Your task to perform on an android device: Clear the cart on target.com. Image 0: 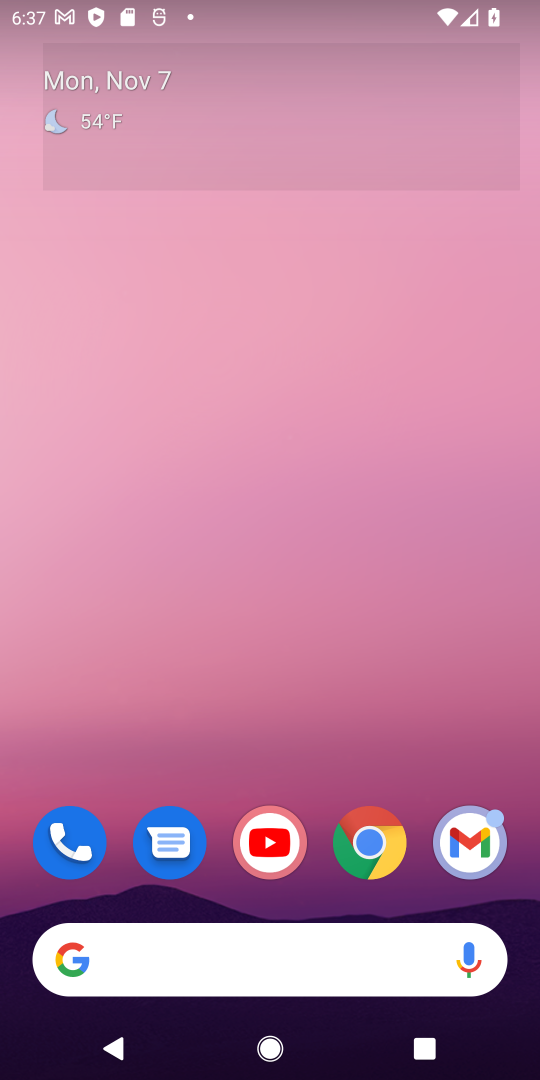
Step 0: click (386, 861)
Your task to perform on an android device: Clear the cart on target.com. Image 1: 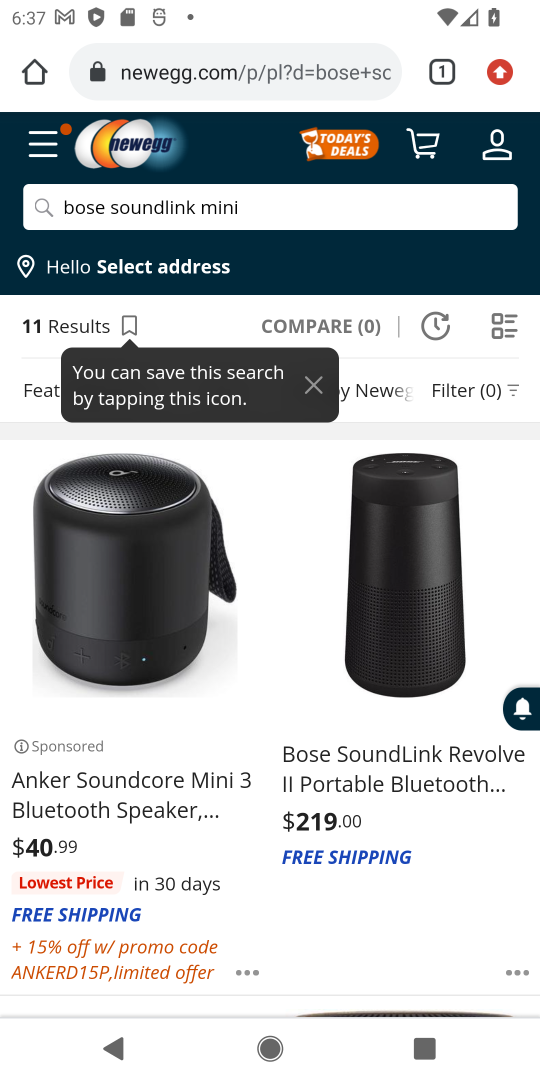
Step 1: click (310, 73)
Your task to perform on an android device: Clear the cart on target.com. Image 2: 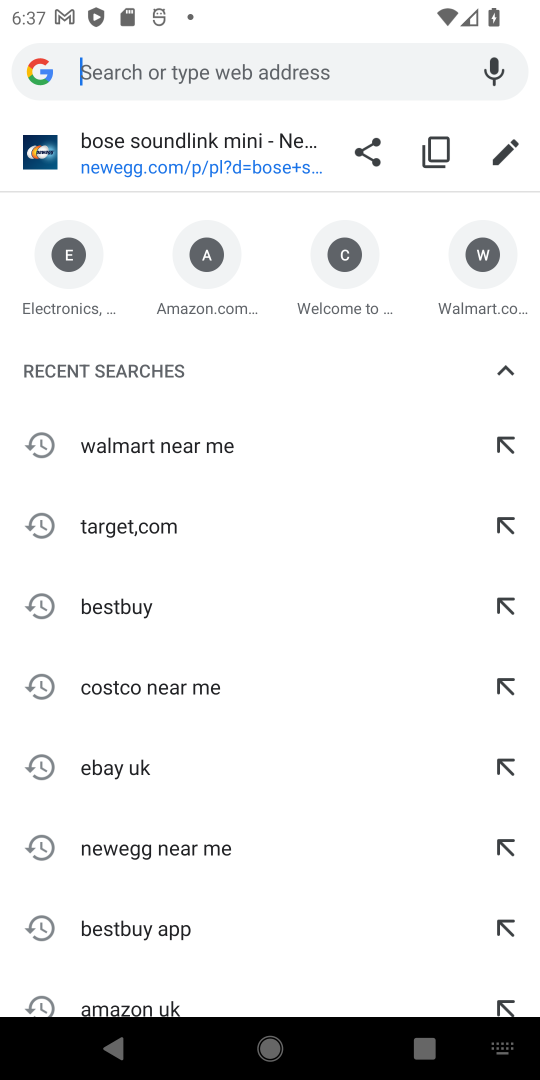
Step 2: drag from (489, 290) to (46, 288)
Your task to perform on an android device: Clear the cart on target.com. Image 3: 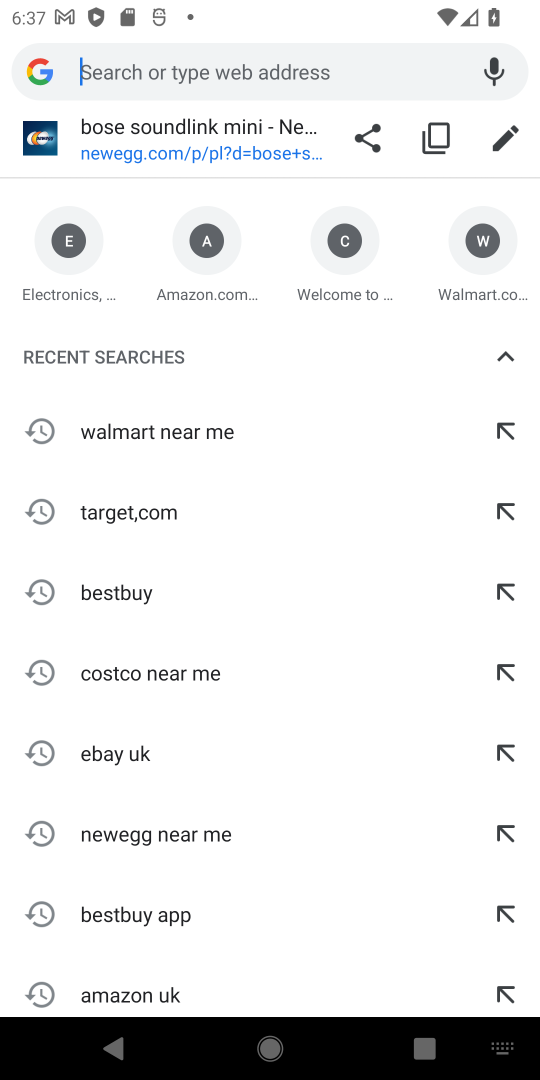
Step 3: drag from (446, 286) to (0, 297)
Your task to perform on an android device: Clear the cart on target.com. Image 4: 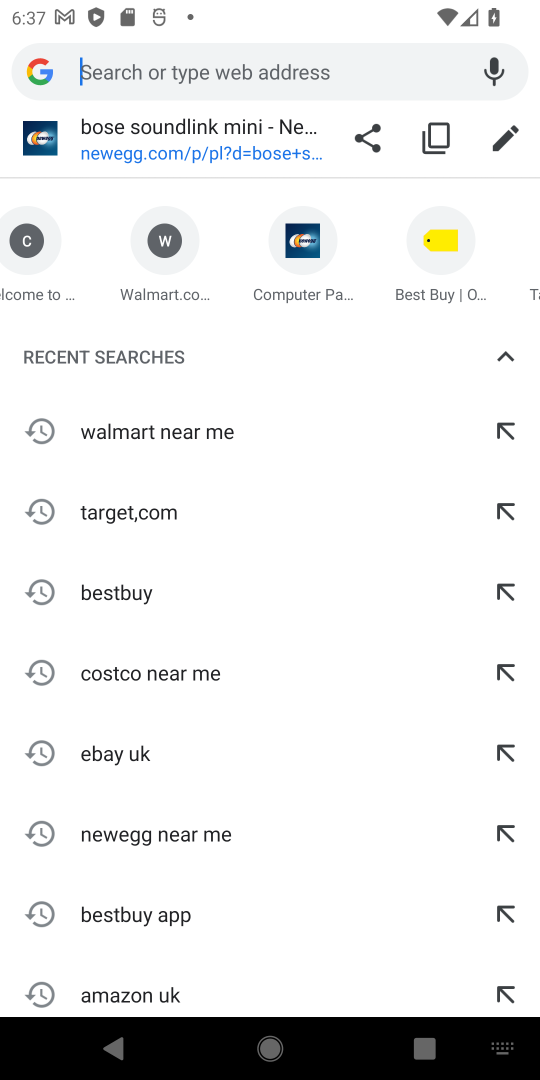
Step 4: drag from (454, 276) to (39, 239)
Your task to perform on an android device: Clear the cart on target.com. Image 5: 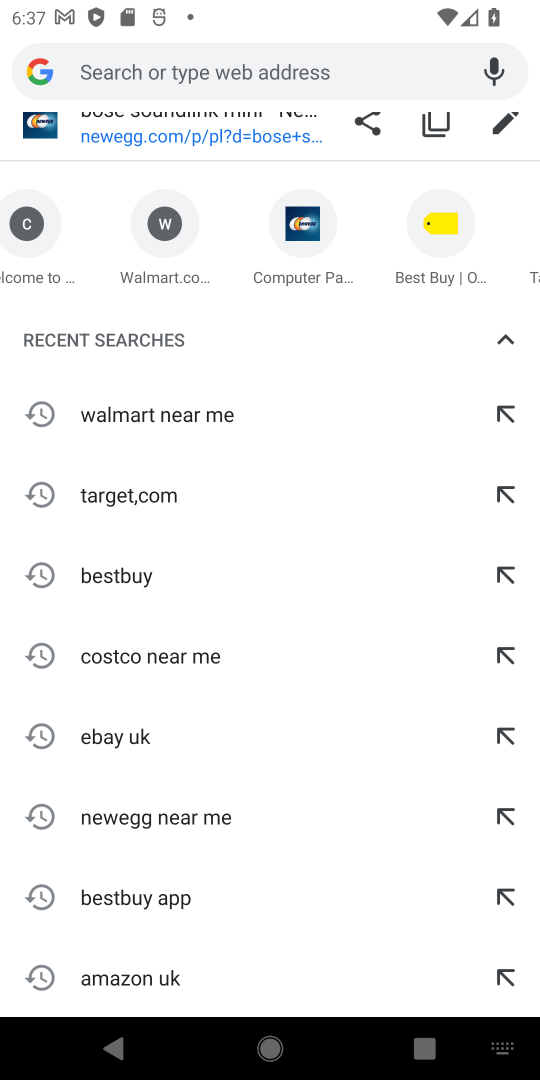
Step 5: drag from (464, 258) to (26, 293)
Your task to perform on an android device: Clear the cart on target.com. Image 6: 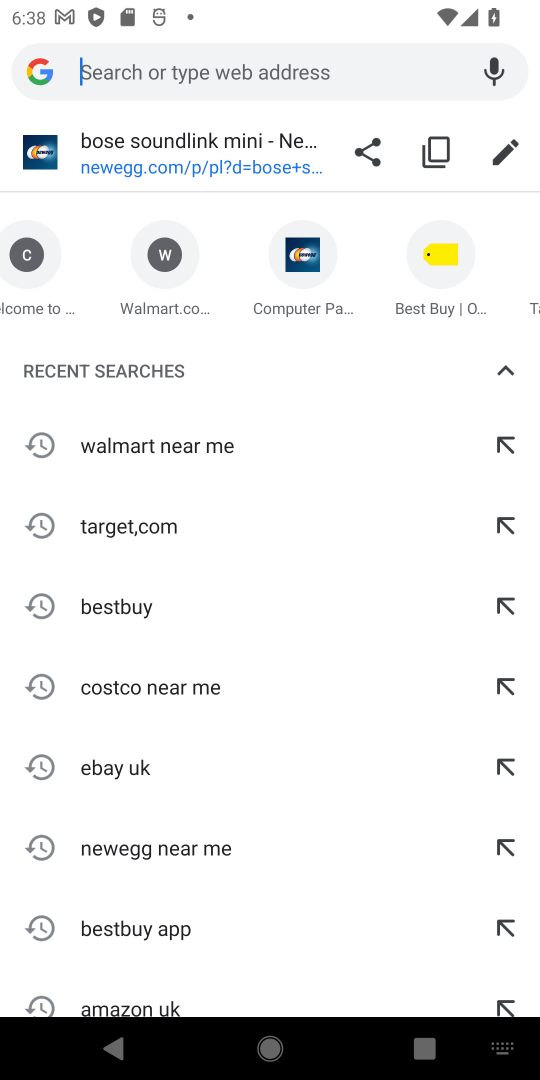
Step 6: click (100, 530)
Your task to perform on an android device: Clear the cart on target.com. Image 7: 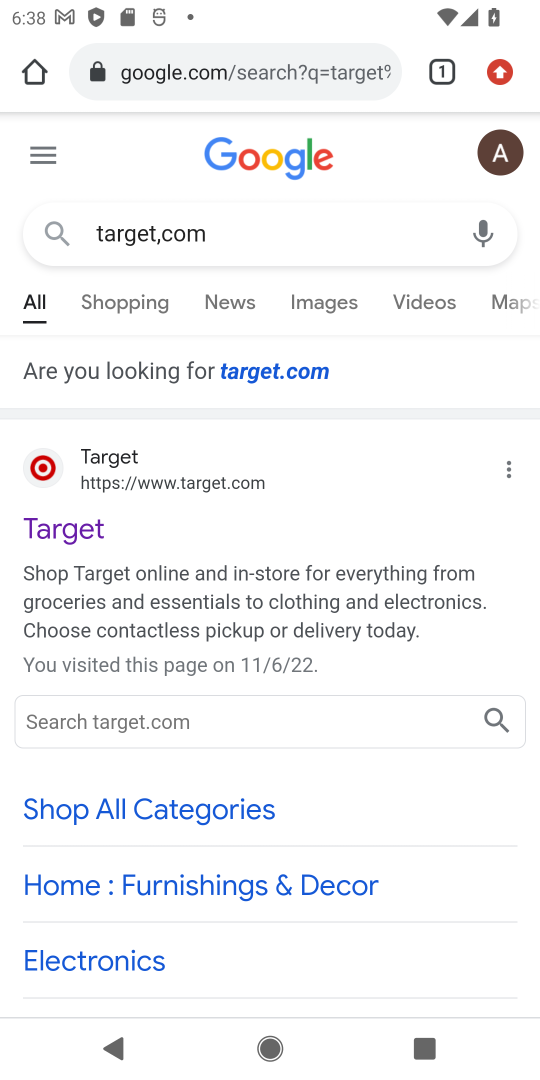
Step 7: click (73, 524)
Your task to perform on an android device: Clear the cart on target.com. Image 8: 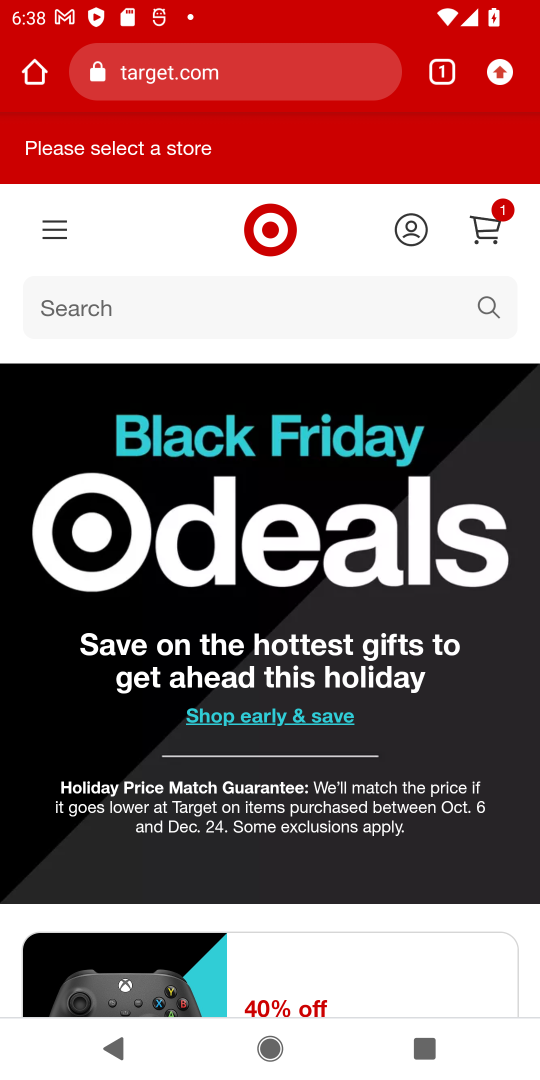
Step 8: click (477, 222)
Your task to perform on an android device: Clear the cart on target.com. Image 9: 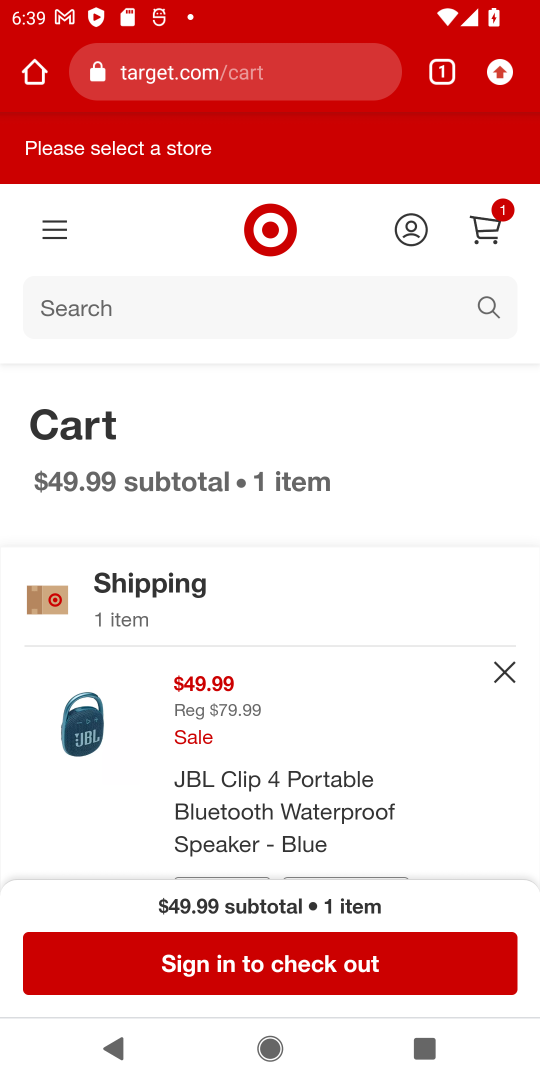
Step 9: click (504, 667)
Your task to perform on an android device: Clear the cart on target.com. Image 10: 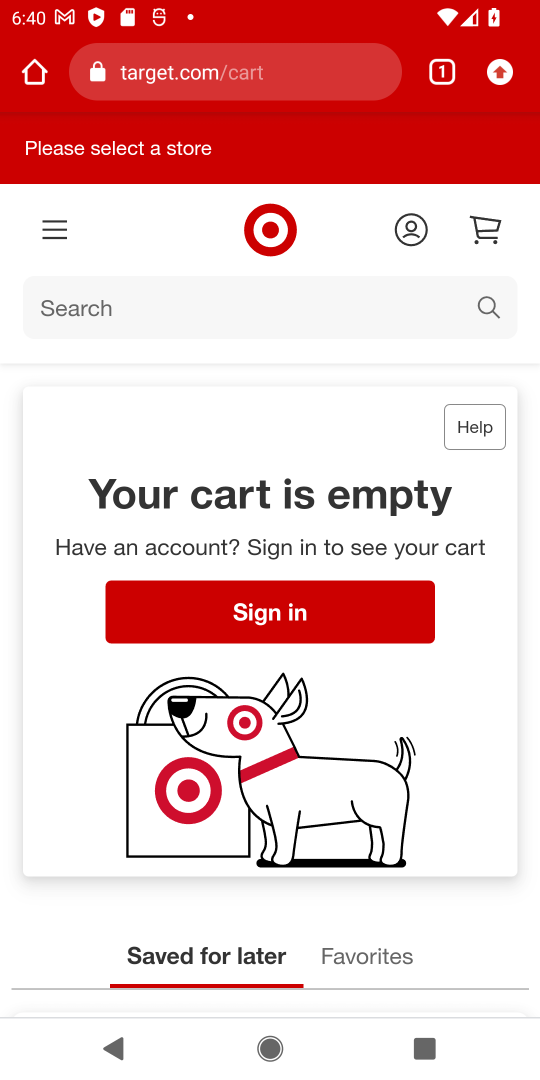
Step 10: task complete